Your task to perform on an android device: Open settings Image 0: 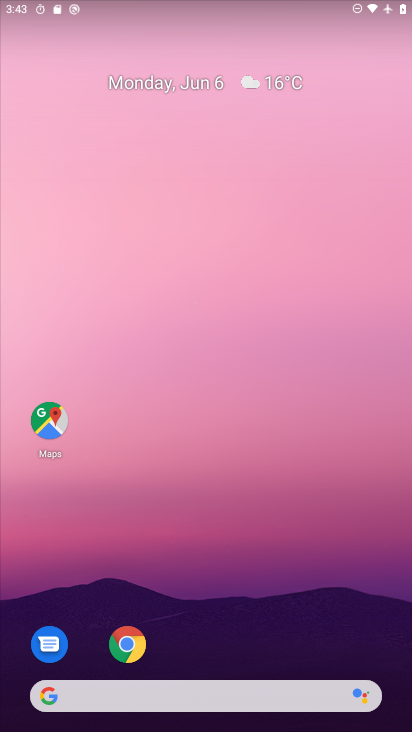
Step 0: drag from (281, 613) to (226, 10)
Your task to perform on an android device: Open settings Image 1: 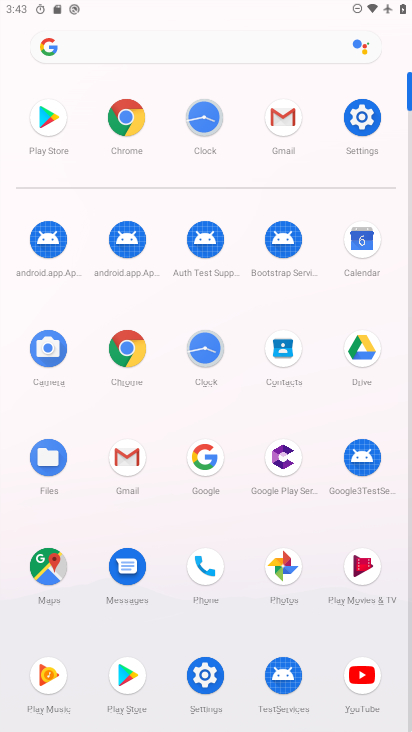
Step 1: click (366, 122)
Your task to perform on an android device: Open settings Image 2: 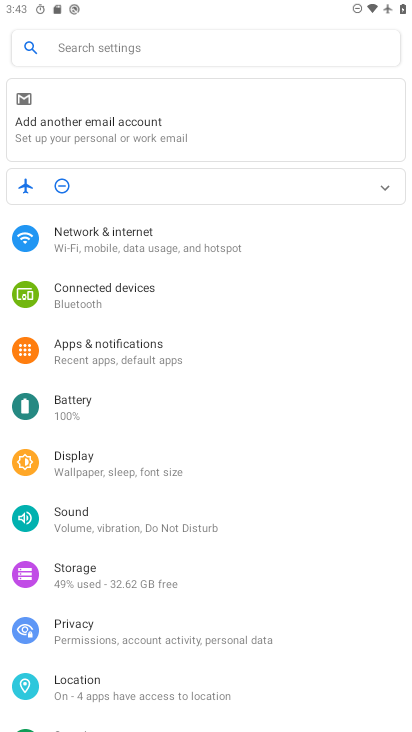
Step 2: task complete